Your task to perform on an android device: Open the web browser Image 0: 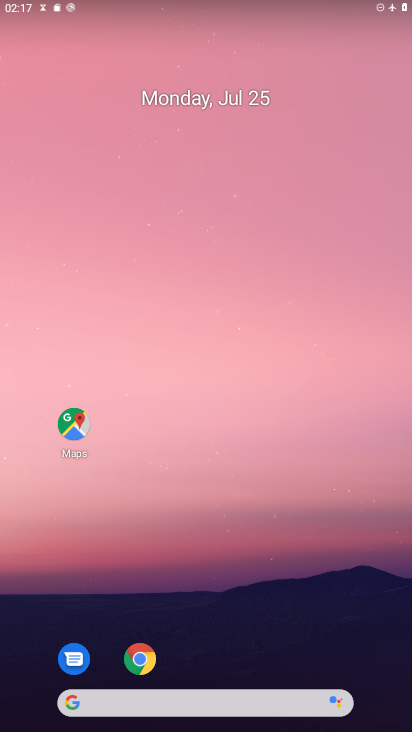
Step 0: click (288, 695)
Your task to perform on an android device: Open the web browser Image 1: 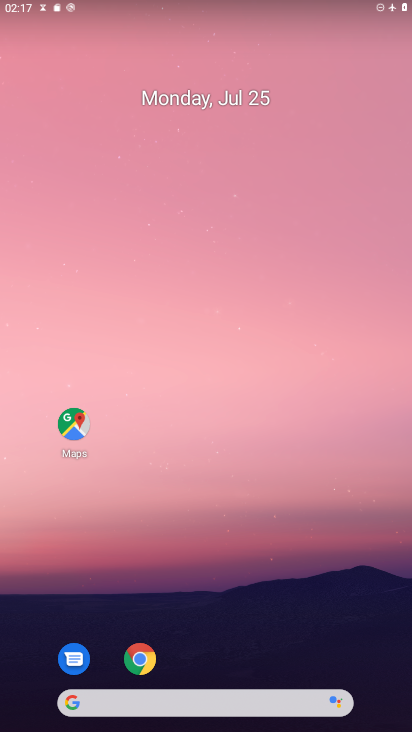
Step 1: click (145, 654)
Your task to perform on an android device: Open the web browser Image 2: 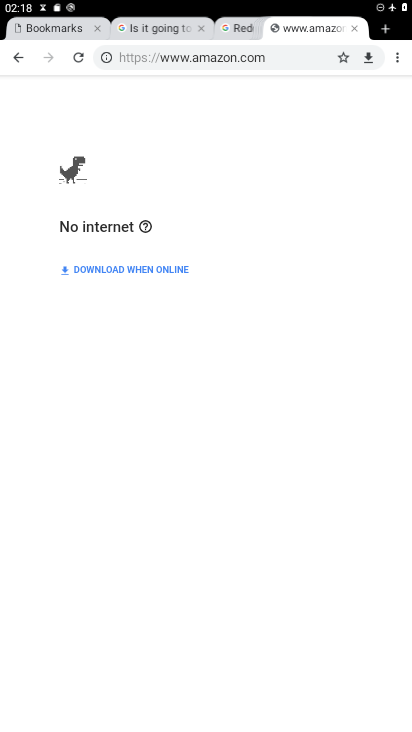
Step 2: task complete